Your task to perform on an android device: turn on priority inbox in the gmail app Image 0: 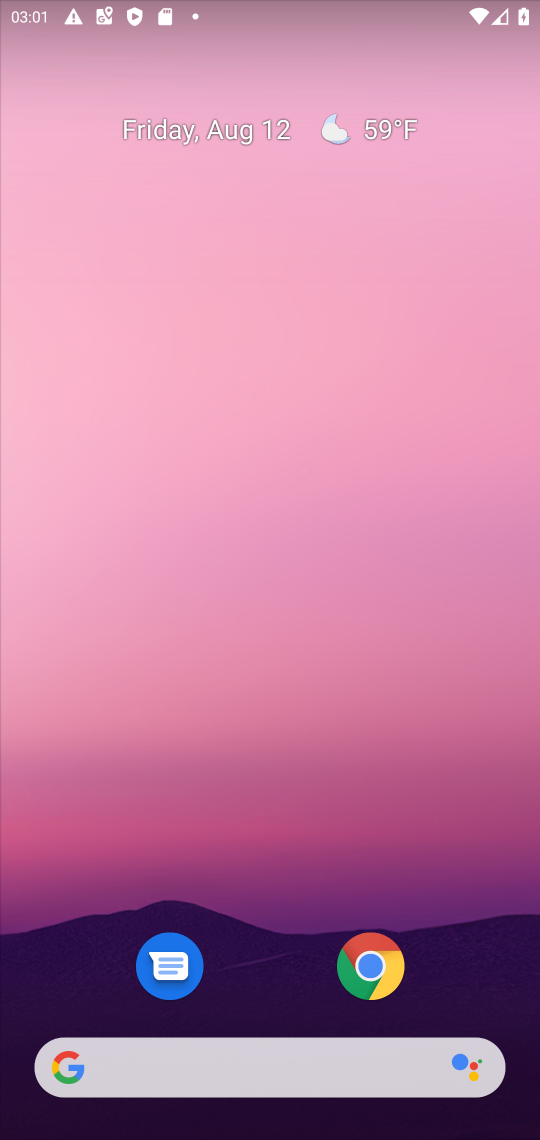
Step 0: drag from (265, 878) to (387, 107)
Your task to perform on an android device: turn on priority inbox in the gmail app Image 1: 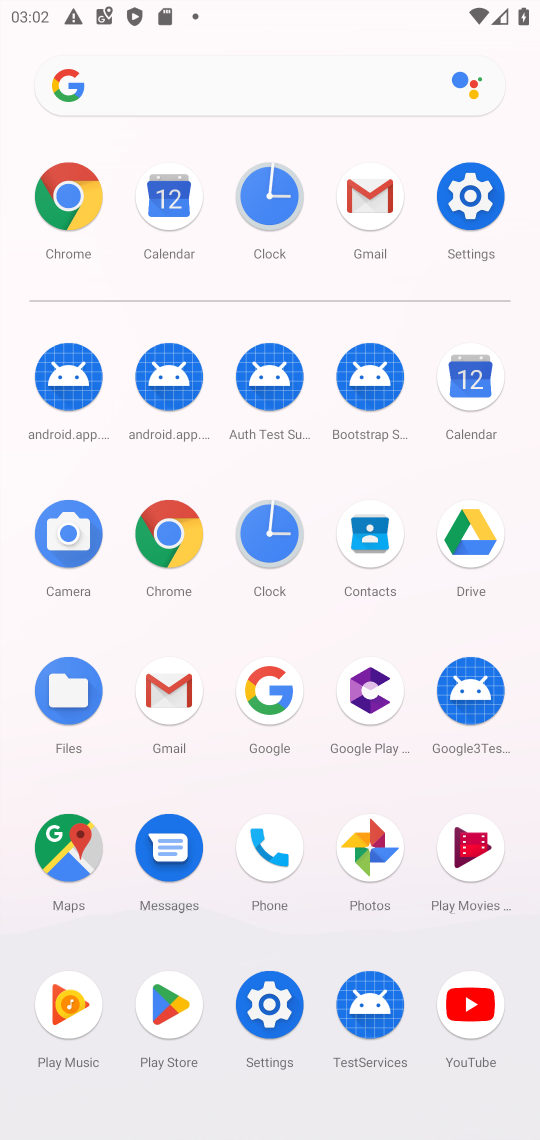
Step 1: click (180, 689)
Your task to perform on an android device: turn on priority inbox in the gmail app Image 2: 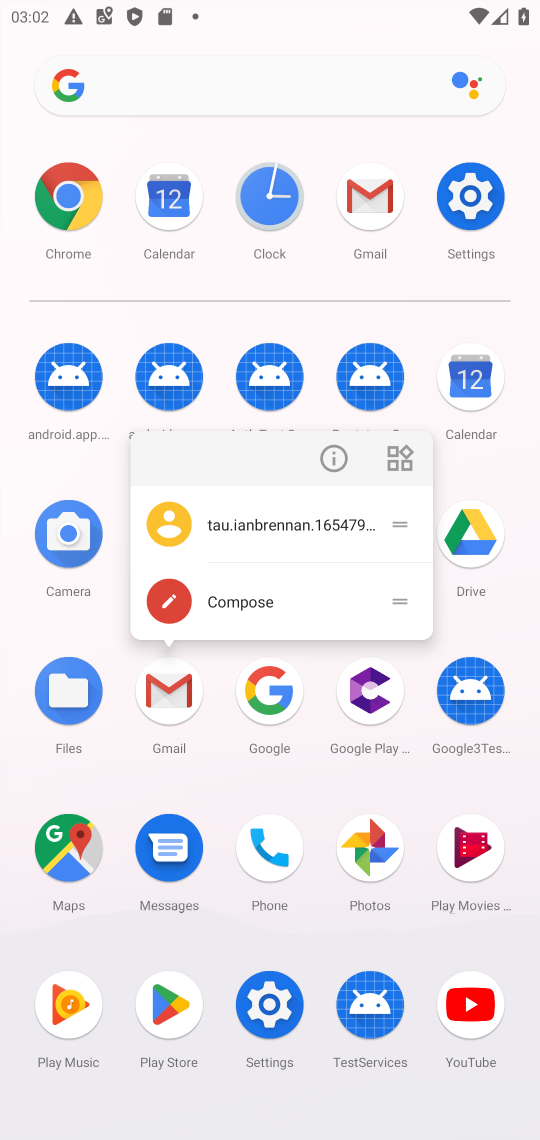
Step 2: click (167, 689)
Your task to perform on an android device: turn on priority inbox in the gmail app Image 3: 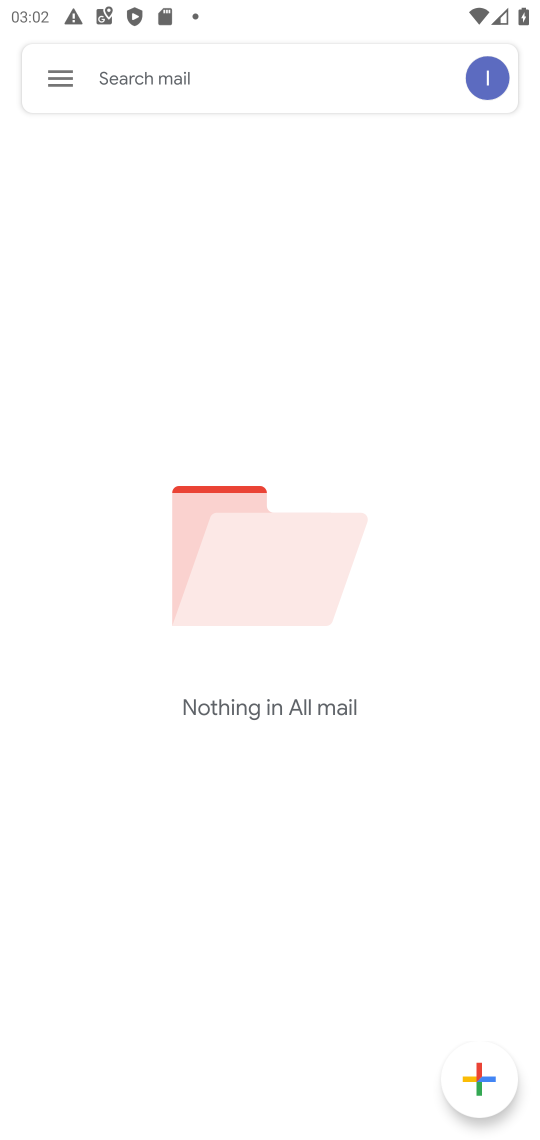
Step 3: click (69, 82)
Your task to perform on an android device: turn on priority inbox in the gmail app Image 4: 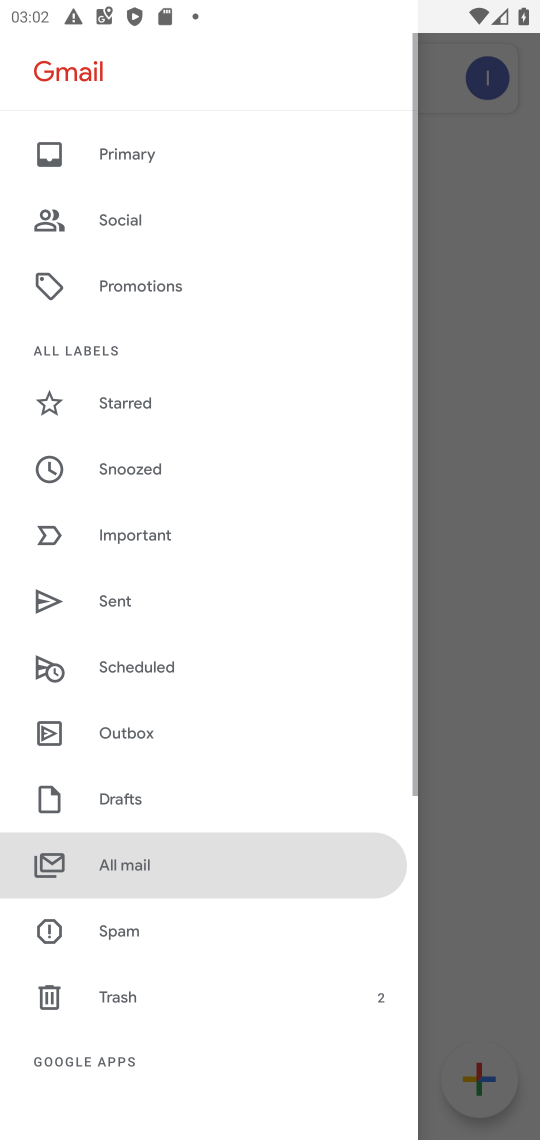
Step 4: drag from (102, 1055) to (176, 178)
Your task to perform on an android device: turn on priority inbox in the gmail app Image 5: 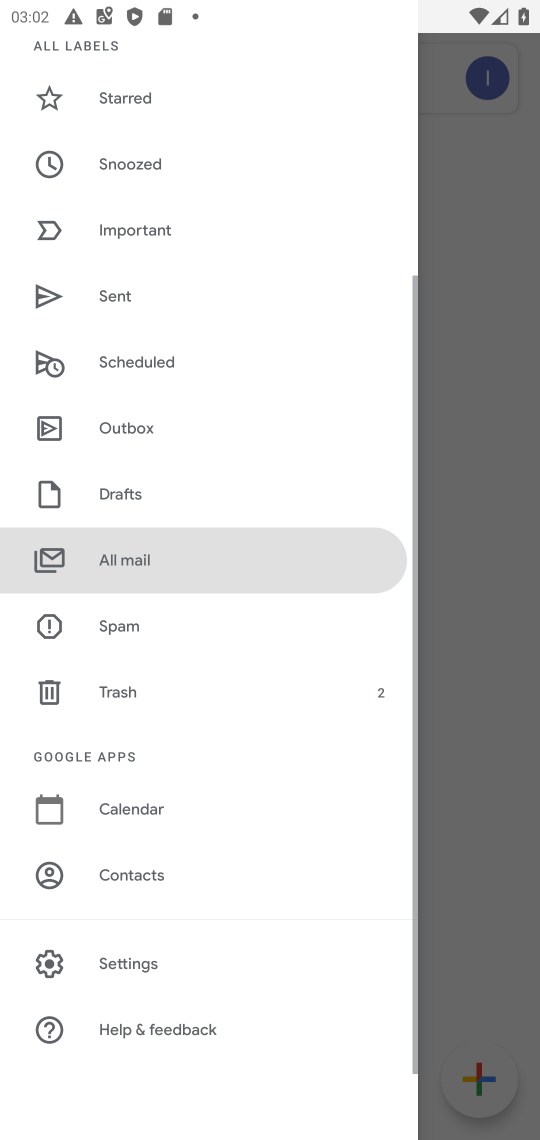
Step 5: click (128, 964)
Your task to perform on an android device: turn on priority inbox in the gmail app Image 6: 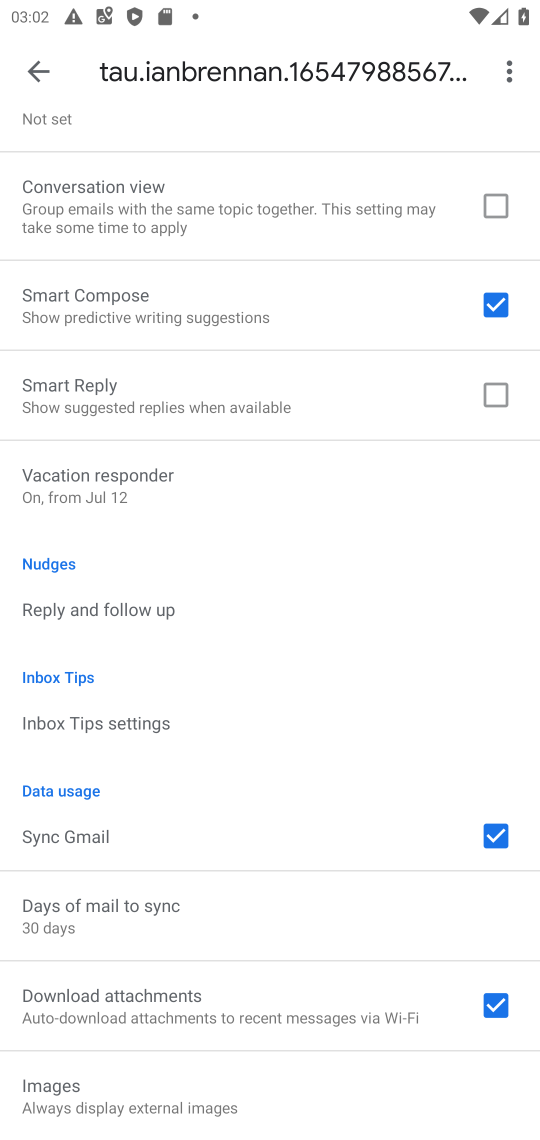
Step 6: drag from (254, 182) to (204, 909)
Your task to perform on an android device: turn on priority inbox in the gmail app Image 7: 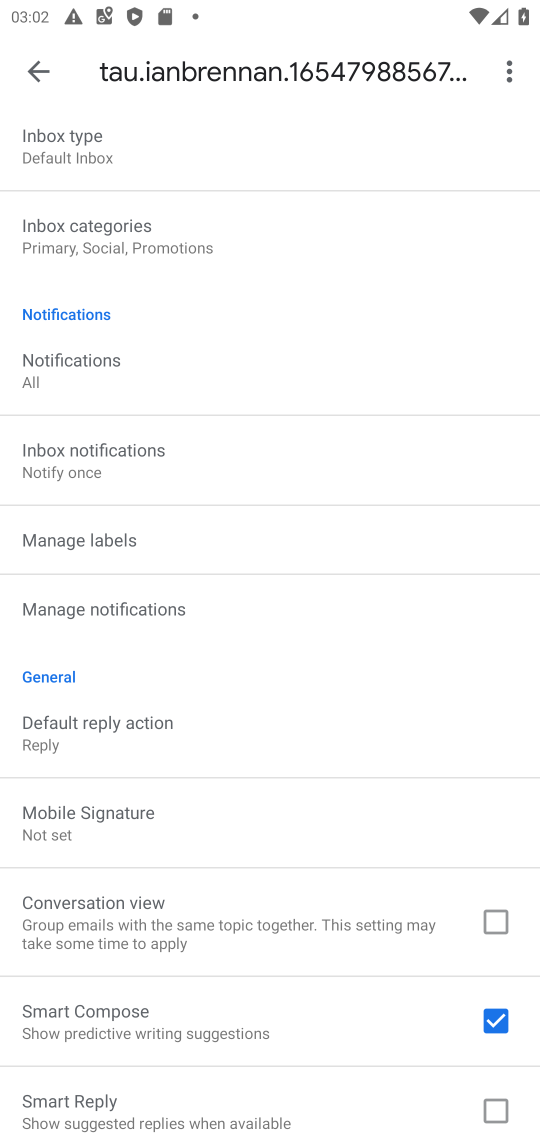
Step 7: drag from (300, 169) to (306, 876)
Your task to perform on an android device: turn on priority inbox in the gmail app Image 8: 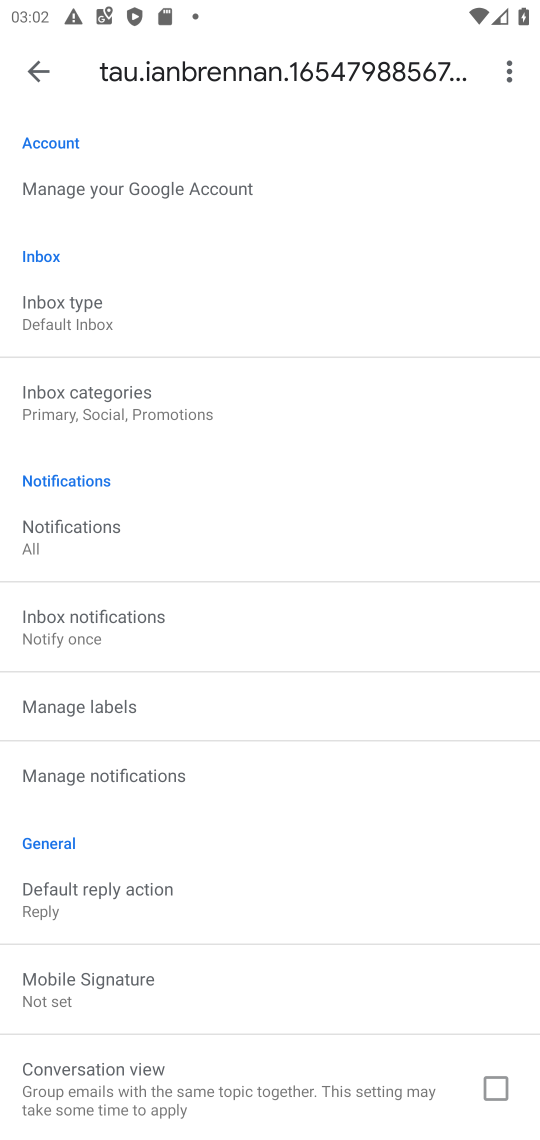
Step 8: click (86, 319)
Your task to perform on an android device: turn on priority inbox in the gmail app Image 9: 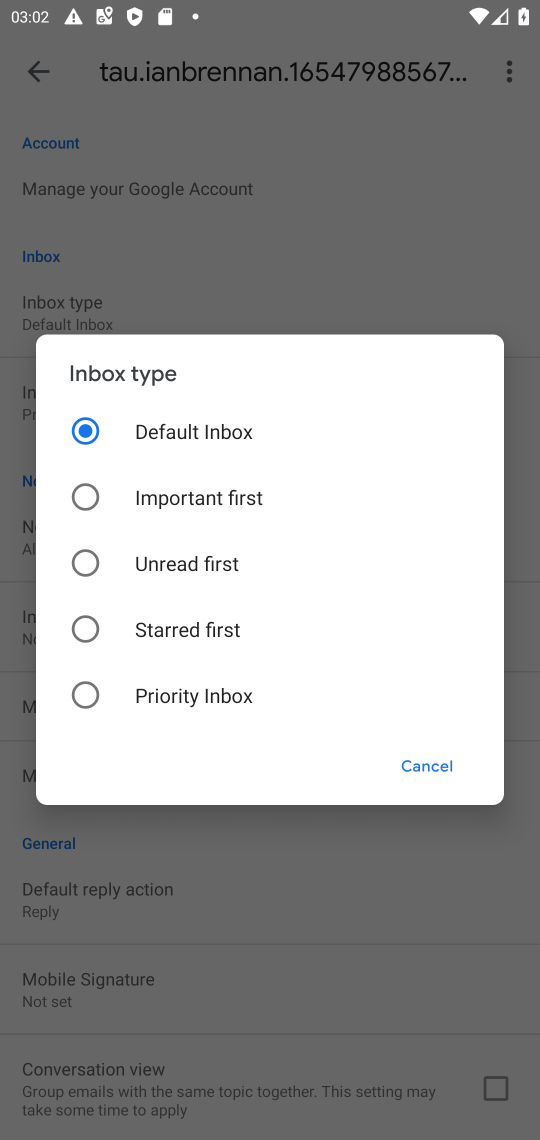
Step 9: task complete